Your task to perform on an android device: Play the last video I watched on Youtube Image 0: 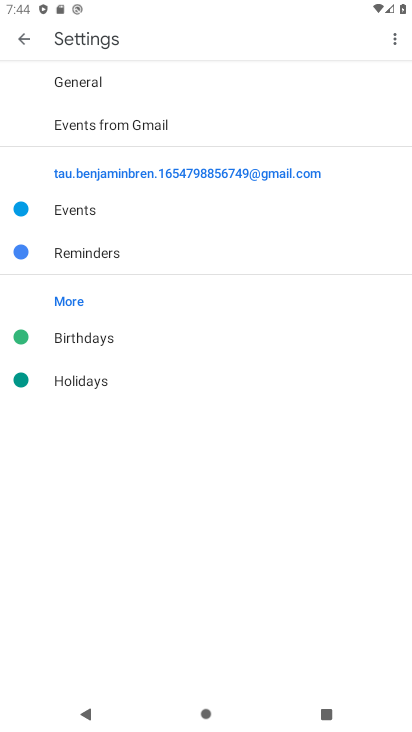
Step 0: press home button
Your task to perform on an android device: Play the last video I watched on Youtube Image 1: 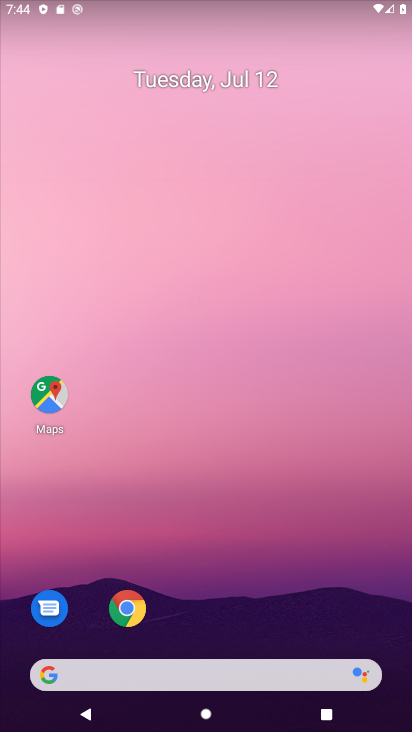
Step 1: drag from (176, 682) to (343, 90)
Your task to perform on an android device: Play the last video I watched on Youtube Image 2: 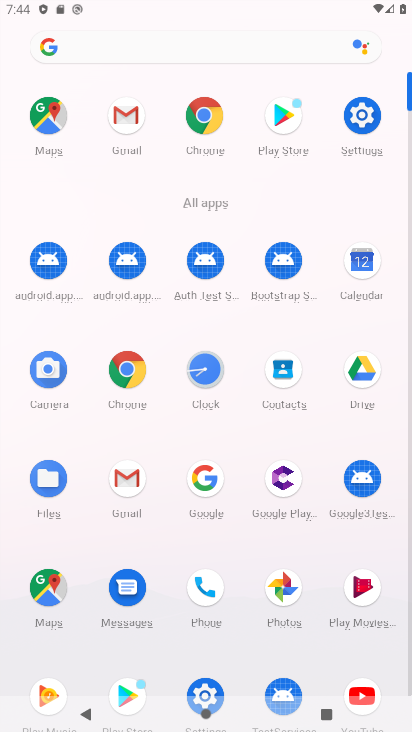
Step 2: click (358, 695)
Your task to perform on an android device: Play the last video I watched on Youtube Image 3: 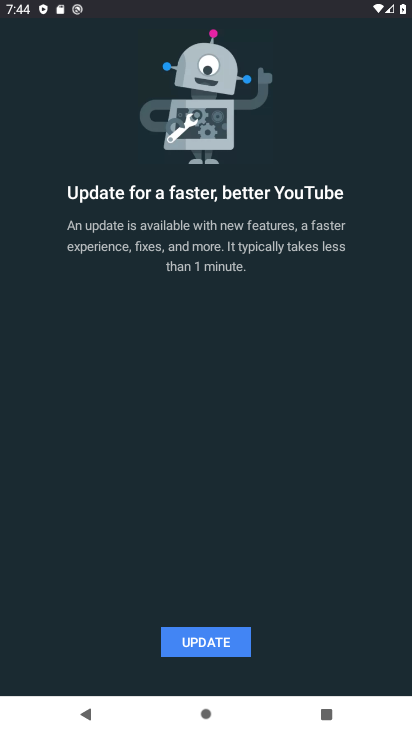
Step 3: click (231, 641)
Your task to perform on an android device: Play the last video I watched on Youtube Image 4: 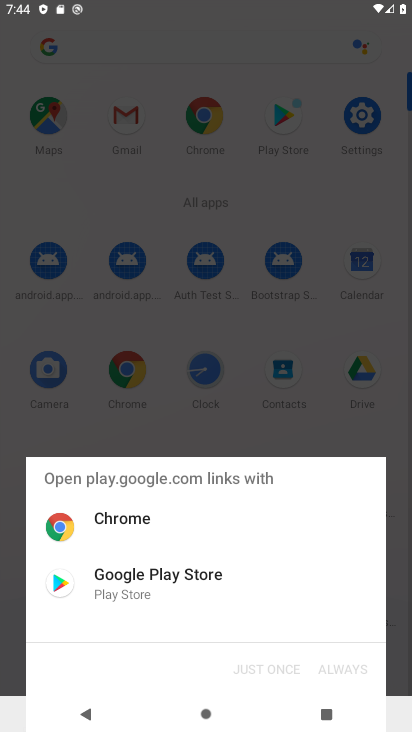
Step 4: click (177, 560)
Your task to perform on an android device: Play the last video I watched on Youtube Image 5: 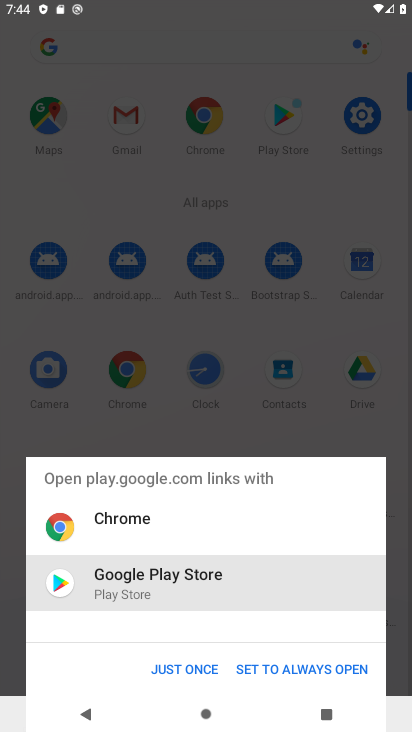
Step 5: click (191, 666)
Your task to perform on an android device: Play the last video I watched on Youtube Image 6: 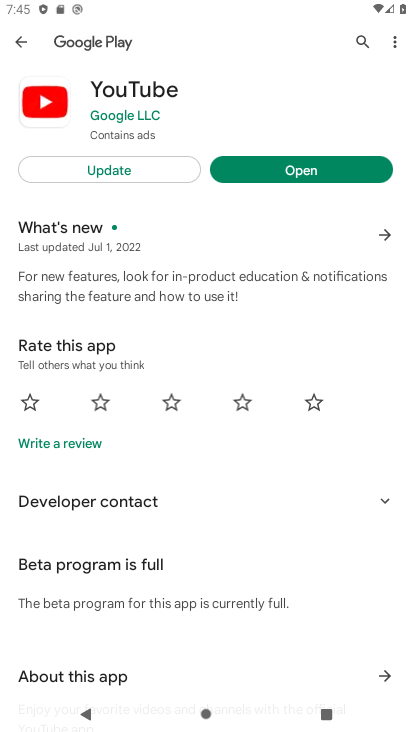
Step 6: click (118, 165)
Your task to perform on an android device: Play the last video I watched on Youtube Image 7: 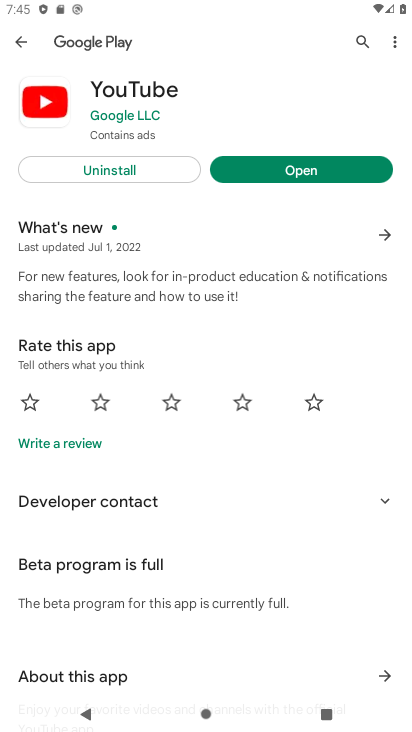
Step 7: click (299, 168)
Your task to perform on an android device: Play the last video I watched on Youtube Image 8: 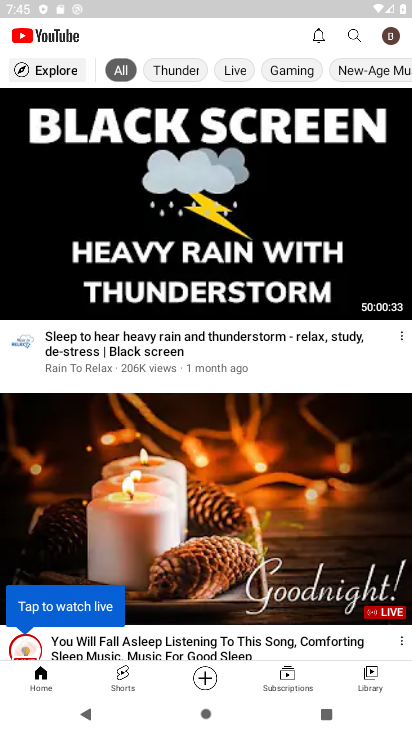
Step 8: click (367, 685)
Your task to perform on an android device: Play the last video I watched on Youtube Image 9: 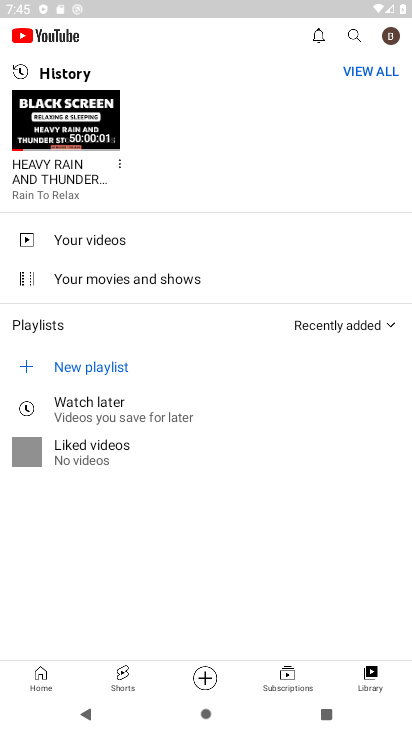
Step 9: click (62, 129)
Your task to perform on an android device: Play the last video I watched on Youtube Image 10: 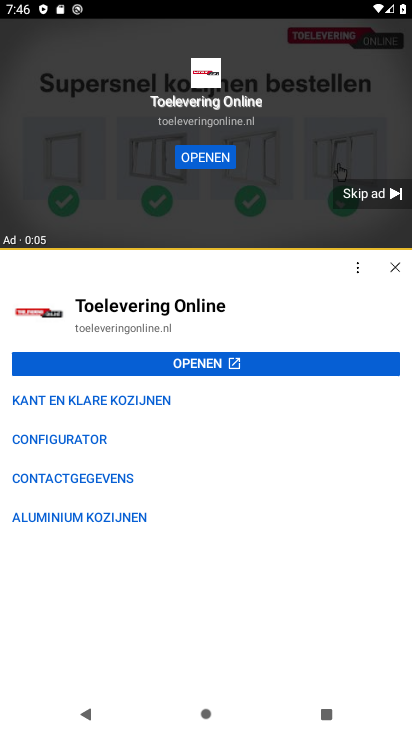
Step 10: click (357, 208)
Your task to perform on an android device: Play the last video I watched on Youtube Image 11: 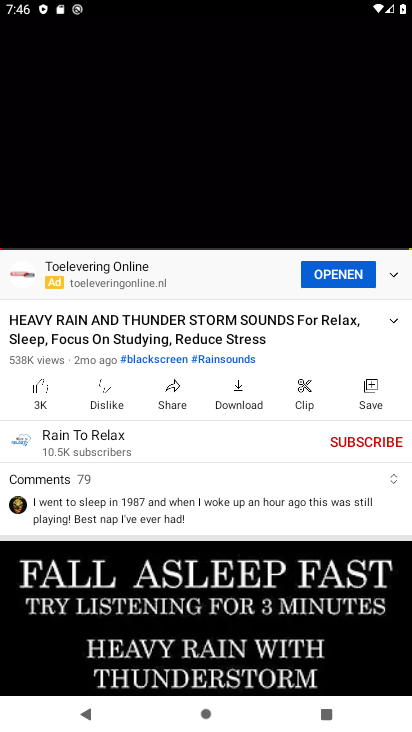
Step 11: click (207, 141)
Your task to perform on an android device: Play the last video I watched on Youtube Image 12: 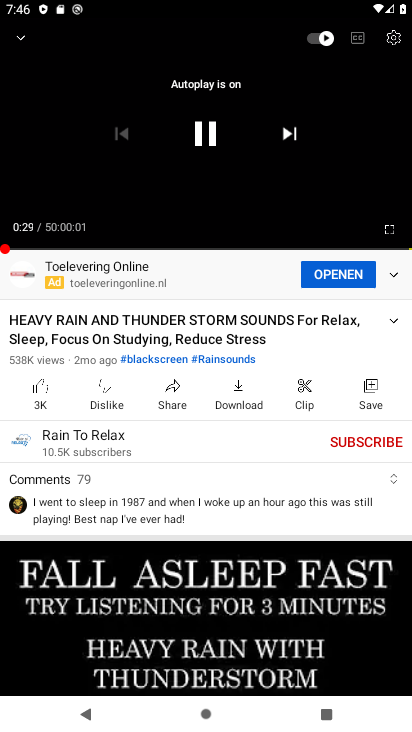
Step 12: click (207, 137)
Your task to perform on an android device: Play the last video I watched on Youtube Image 13: 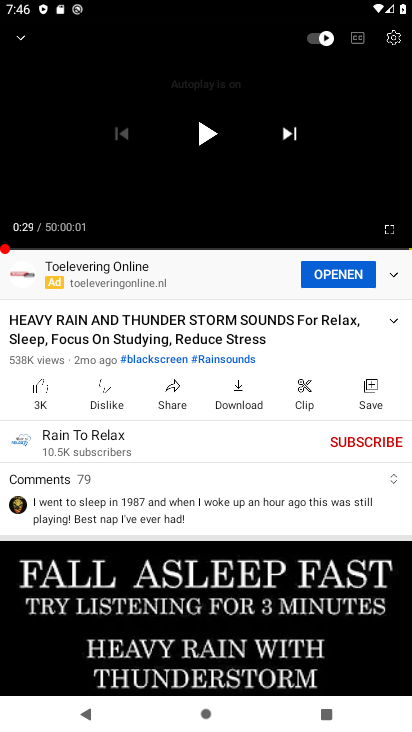
Step 13: task complete